Your task to perform on an android device: change notifications settings Image 0: 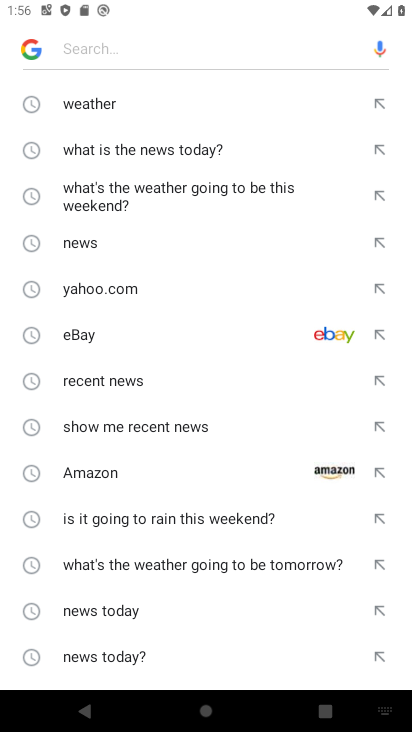
Step 0: press home button
Your task to perform on an android device: change notifications settings Image 1: 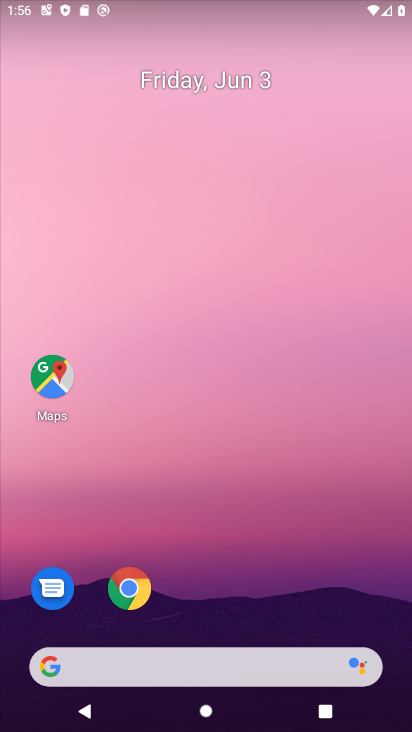
Step 1: drag from (302, 503) to (314, 30)
Your task to perform on an android device: change notifications settings Image 2: 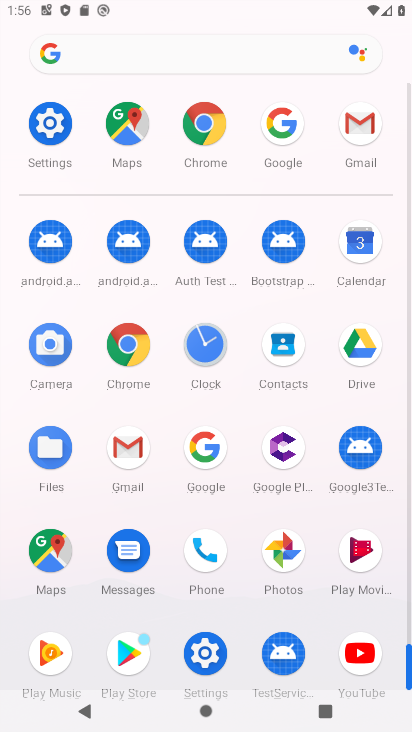
Step 2: drag from (206, 544) to (258, 167)
Your task to perform on an android device: change notifications settings Image 3: 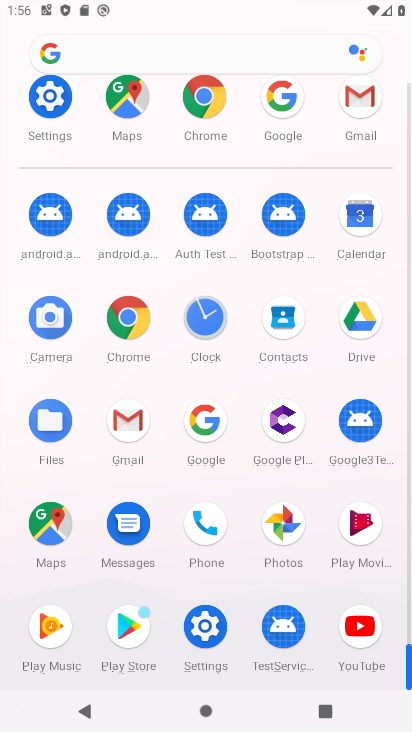
Step 3: click (211, 620)
Your task to perform on an android device: change notifications settings Image 4: 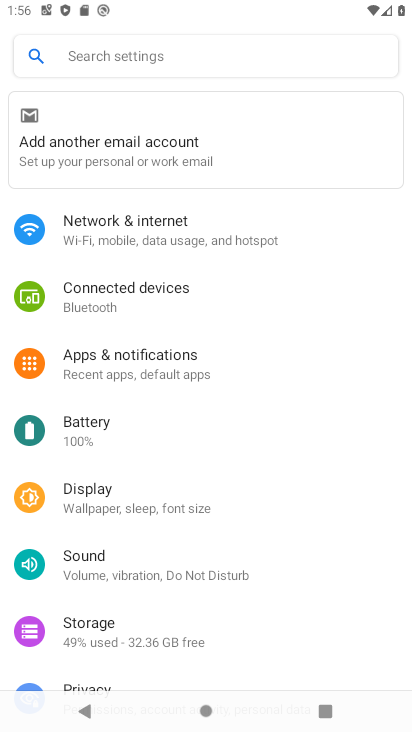
Step 4: click (150, 371)
Your task to perform on an android device: change notifications settings Image 5: 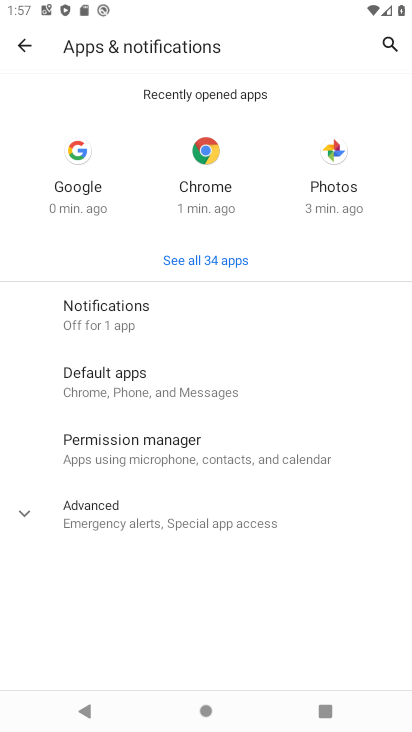
Step 5: click (229, 329)
Your task to perform on an android device: change notifications settings Image 6: 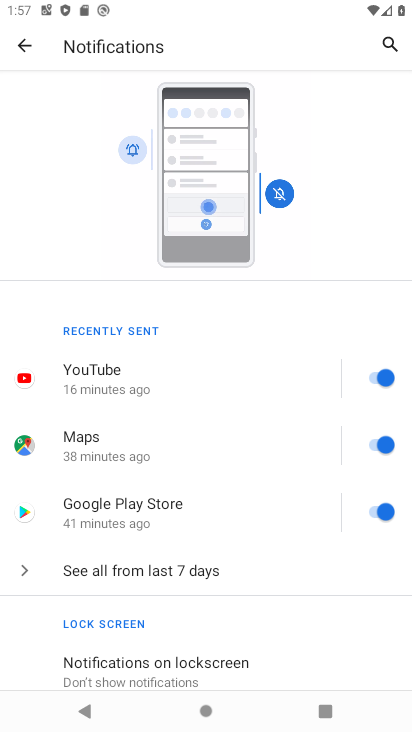
Step 6: drag from (157, 541) to (171, 285)
Your task to perform on an android device: change notifications settings Image 7: 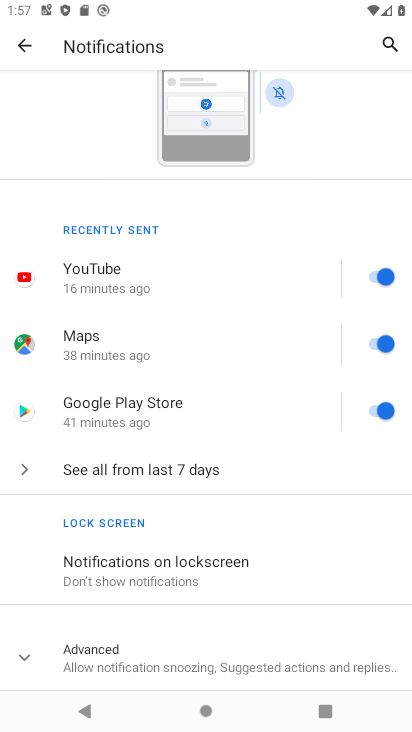
Step 7: drag from (212, 553) to (245, 278)
Your task to perform on an android device: change notifications settings Image 8: 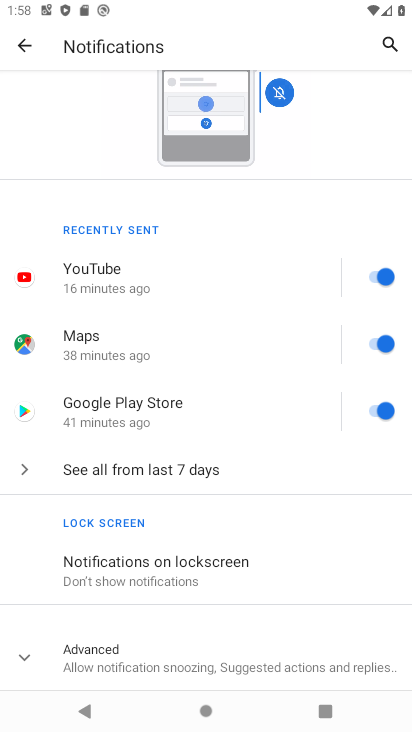
Step 8: click (380, 281)
Your task to perform on an android device: change notifications settings Image 9: 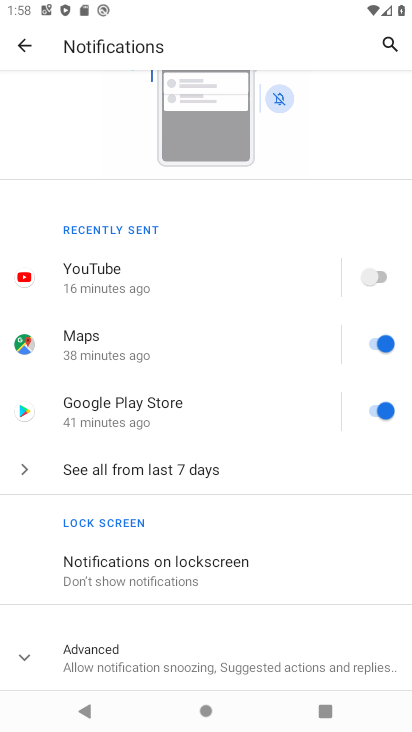
Step 9: task complete